Your task to perform on an android device: Open Wikipedia Image 0: 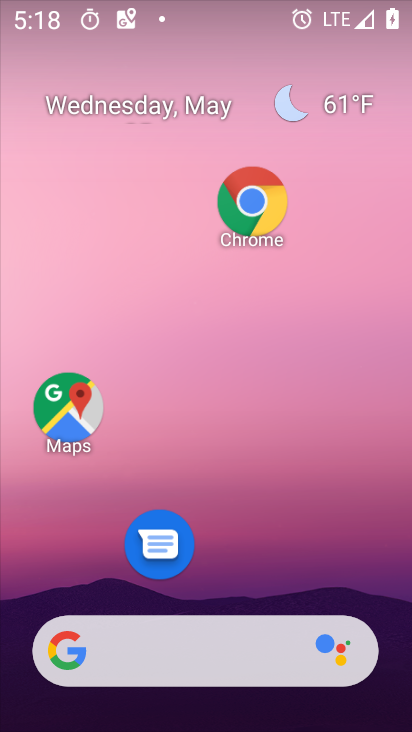
Step 0: drag from (232, 622) to (266, 192)
Your task to perform on an android device: Open Wikipedia Image 1: 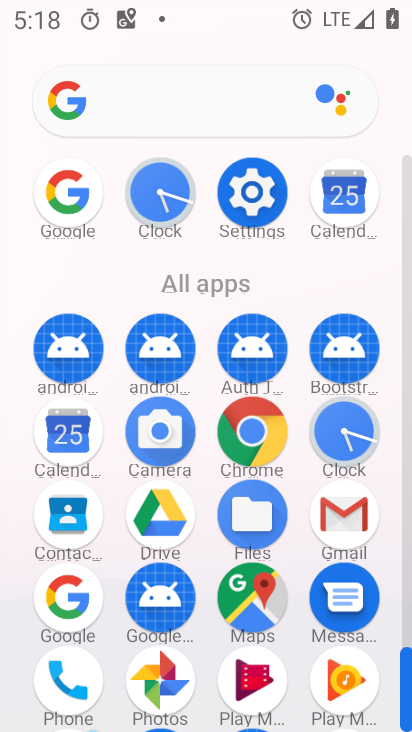
Step 1: click (260, 421)
Your task to perform on an android device: Open Wikipedia Image 2: 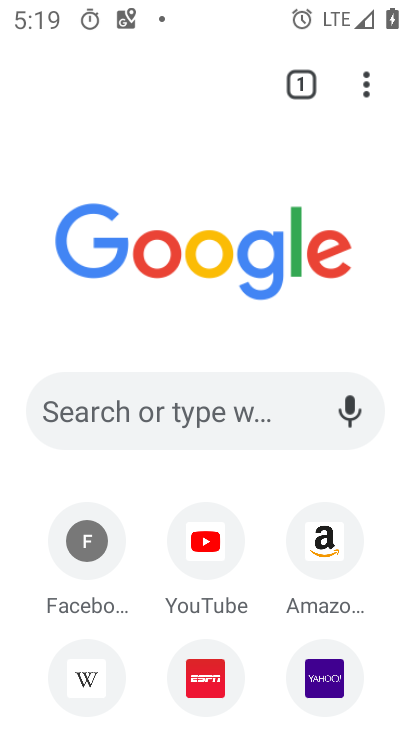
Step 2: click (84, 684)
Your task to perform on an android device: Open Wikipedia Image 3: 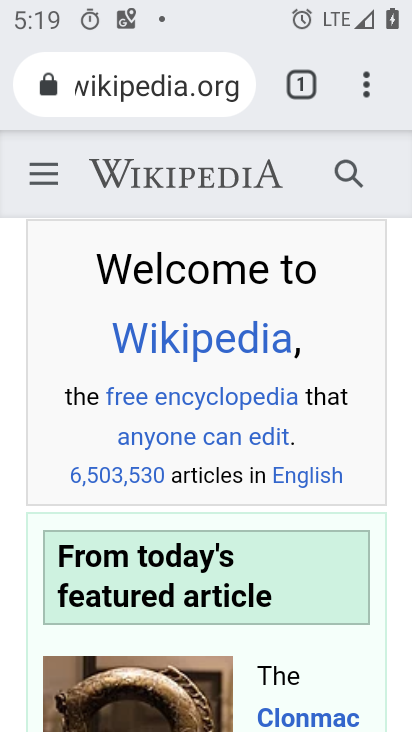
Step 3: task complete